Your task to perform on an android device: Open the web browser Image 0: 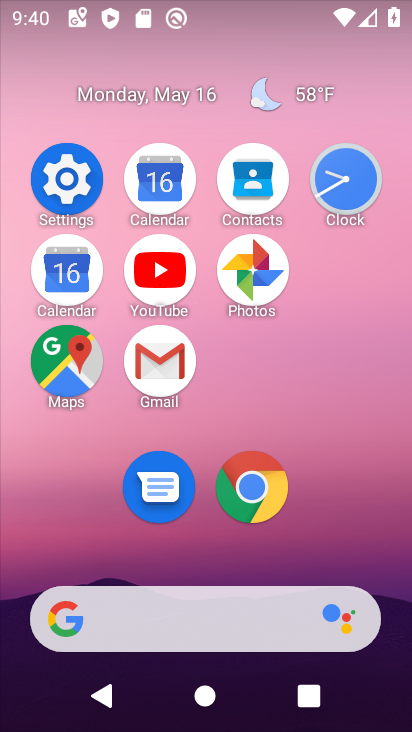
Step 0: click (231, 491)
Your task to perform on an android device: Open the web browser Image 1: 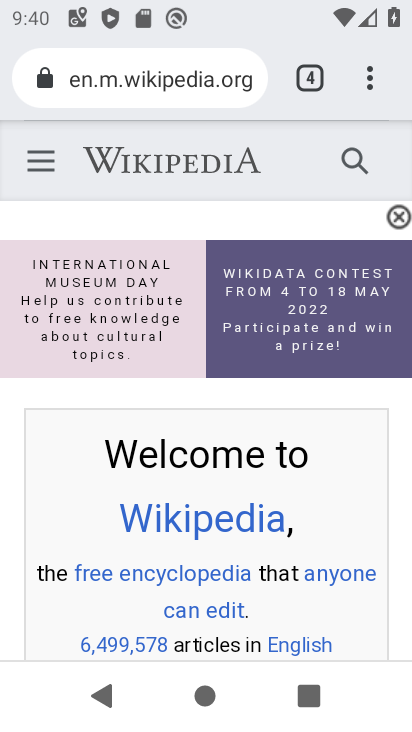
Step 1: task complete